Your task to perform on an android device: snooze an email in the gmail app Image 0: 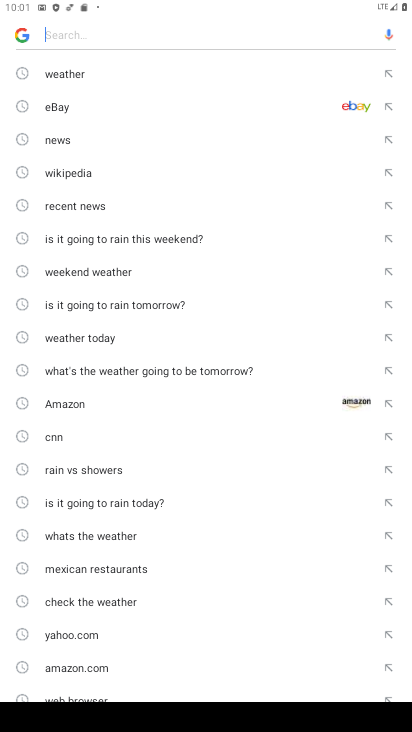
Step 0: press home button
Your task to perform on an android device: snooze an email in the gmail app Image 1: 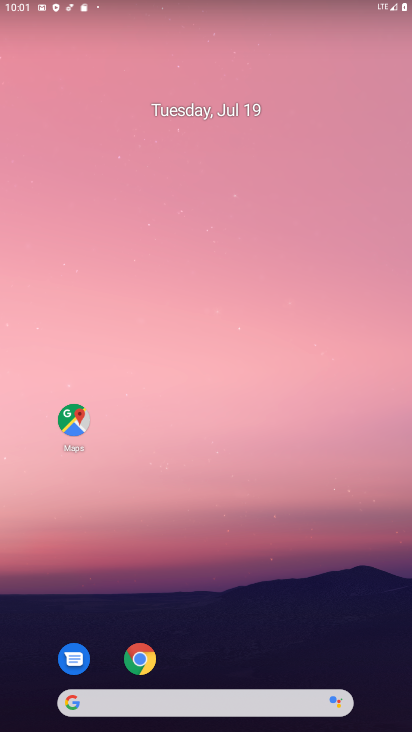
Step 1: drag from (273, 547) to (320, 154)
Your task to perform on an android device: snooze an email in the gmail app Image 2: 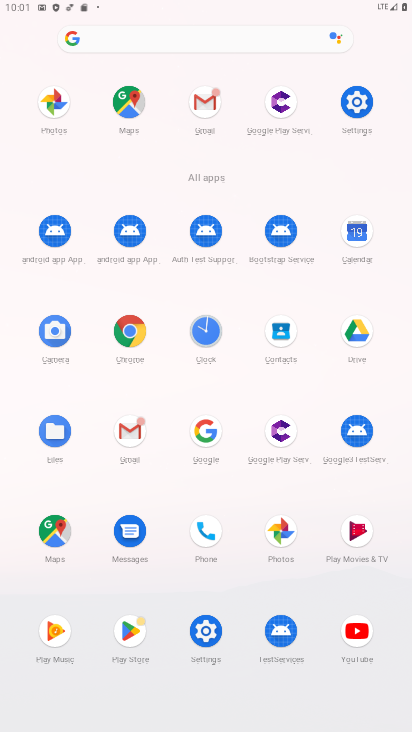
Step 2: click (135, 446)
Your task to perform on an android device: snooze an email in the gmail app Image 3: 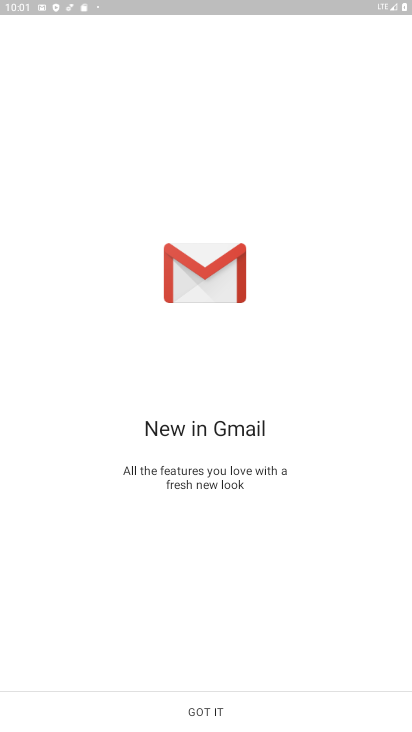
Step 3: click (200, 706)
Your task to perform on an android device: snooze an email in the gmail app Image 4: 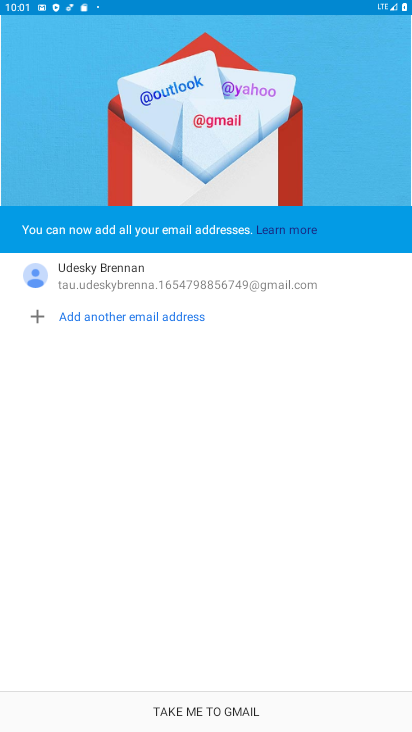
Step 4: click (199, 707)
Your task to perform on an android device: snooze an email in the gmail app Image 5: 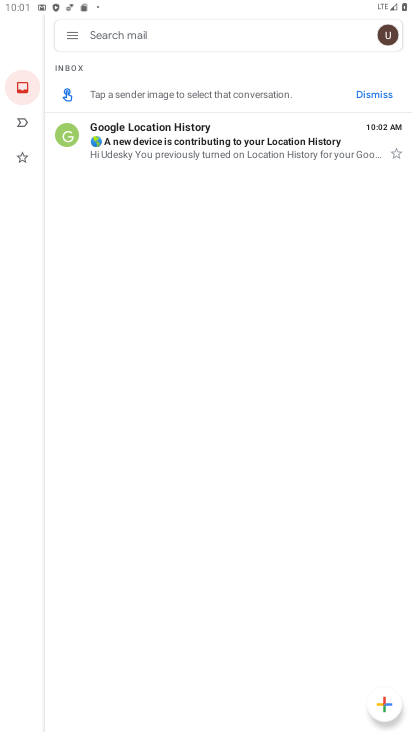
Step 5: click (74, 33)
Your task to perform on an android device: snooze an email in the gmail app Image 6: 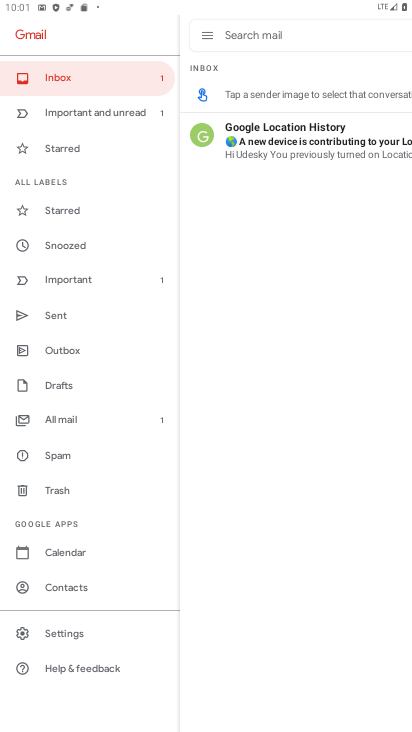
Step 6: click (63, 246)
Your task to perform on an android device: snooze an email in the gmail app Image 7: 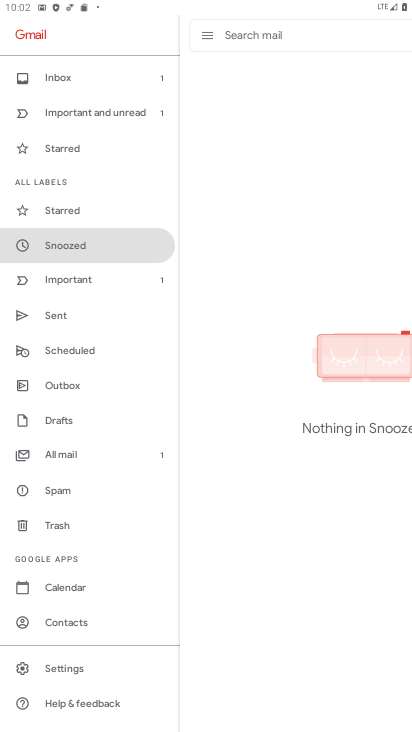
Step 7: task complete